Your task to perform on an android device: toggle translation in the chrome app Image 0: 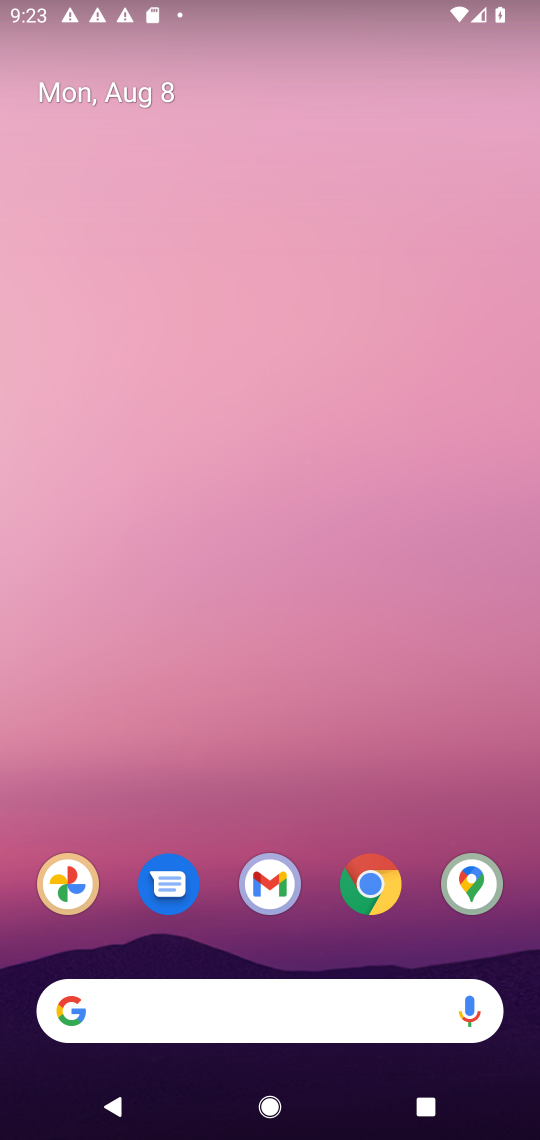
Step 0: click (374, 892)
Your task to perform on an android device: toggle translation in the chrome app Image 1: 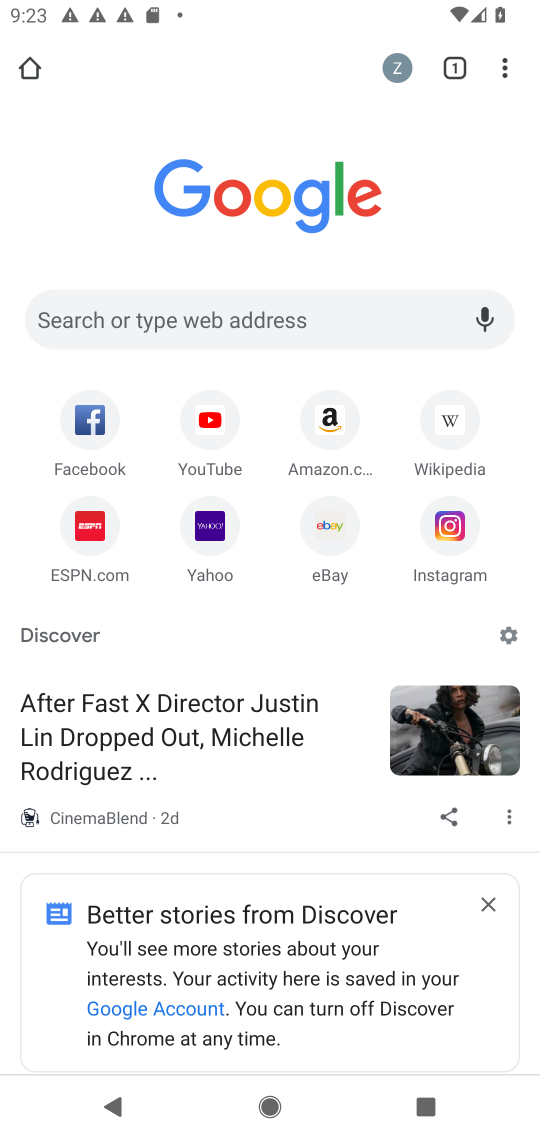
Step 1: click (503, 61)
Your task to perform on an android device: toggle translation in the chrome app Image 2: 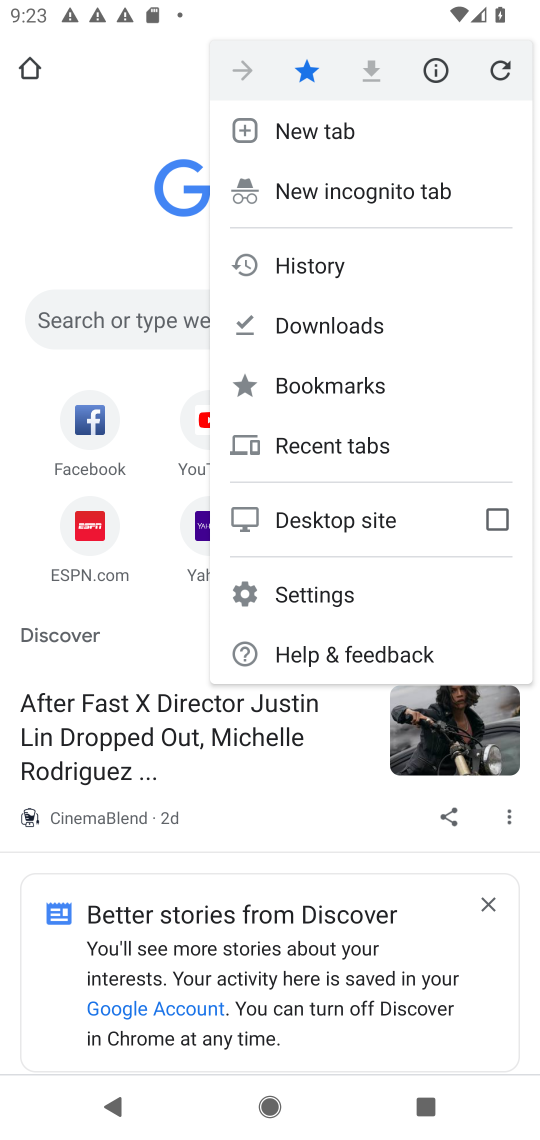
Step 2: click (324, 593)
Your task to perform on an android device: toggle translation in the chrome app Image 3: 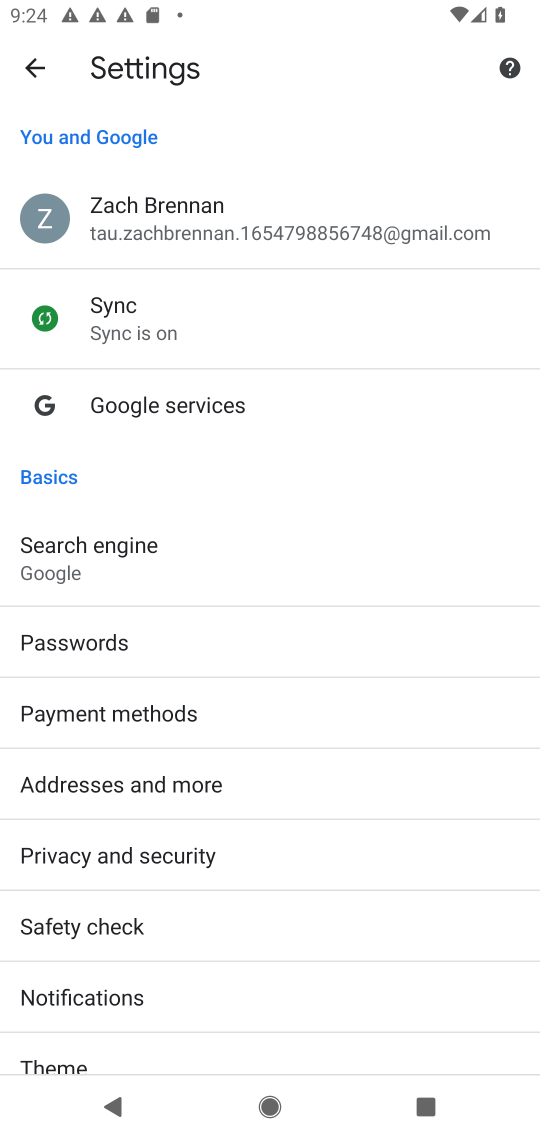
Step 3: drag from (250, 923) to (297, 282)
Your task to perform on an android device: toggle translation in the chrome app Image 4: 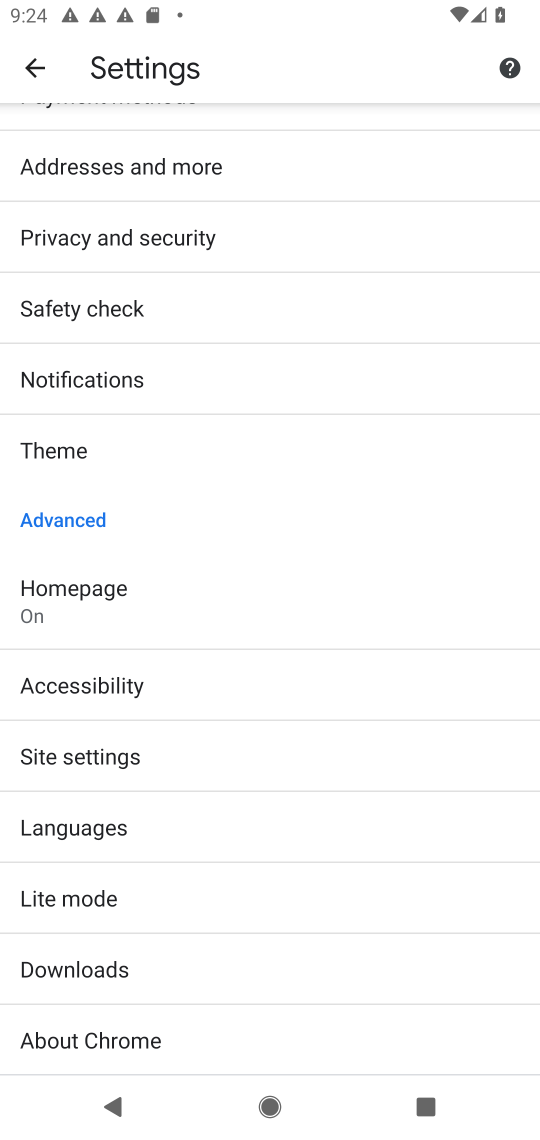
Step 4: click (106, 824)
Your task to perform on an android device: toggle translation in the chrome app Image 5: 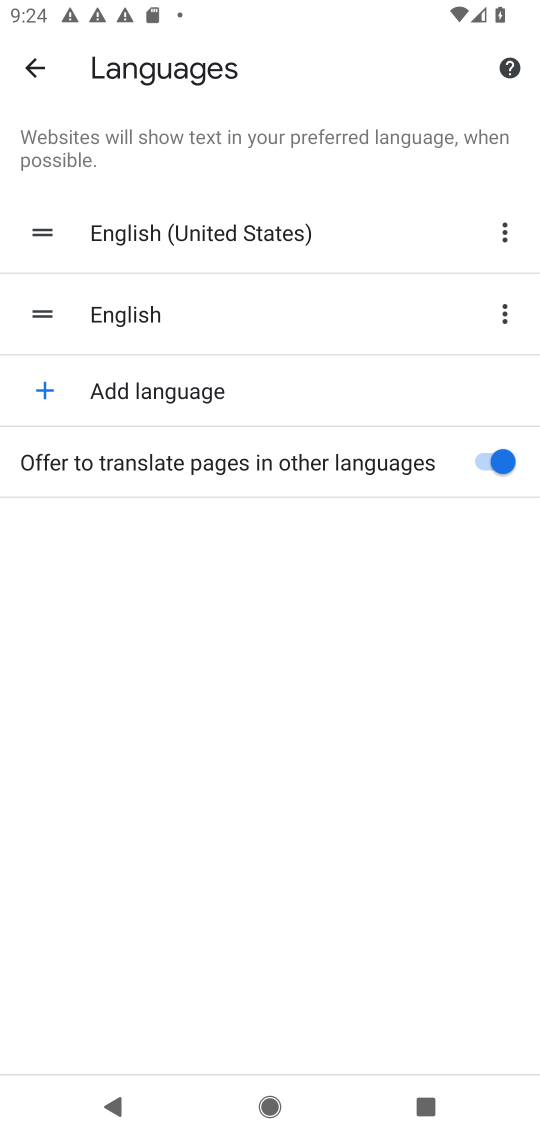
Step 5: click (495, 454)
Your task to perform on an android device: toggle translation in the chrome app Image 6: 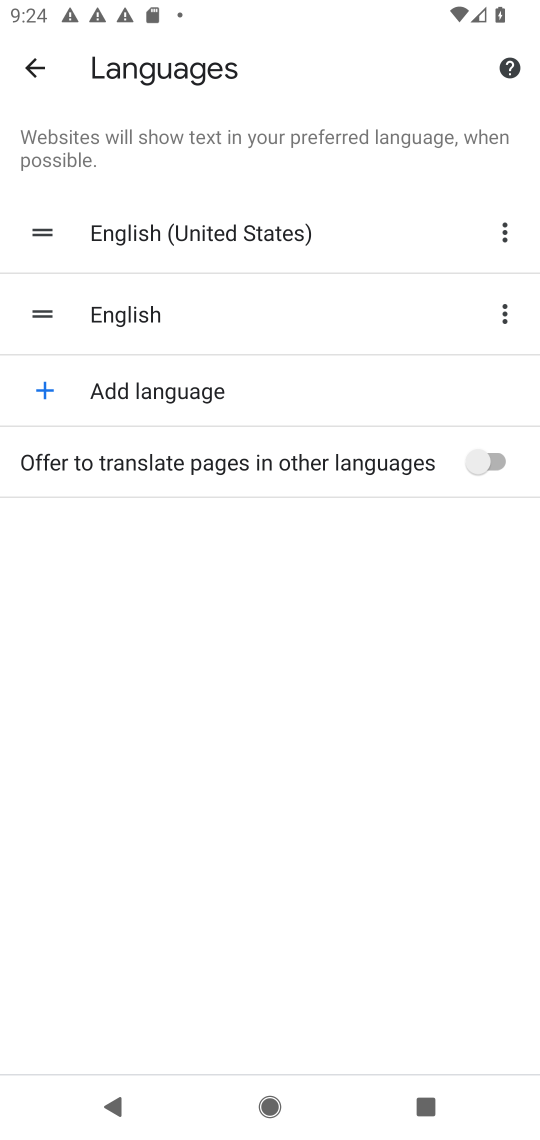
Step 6: task complete